Your task to perform on an android device: delete browsing data in the chrome app Image 0: 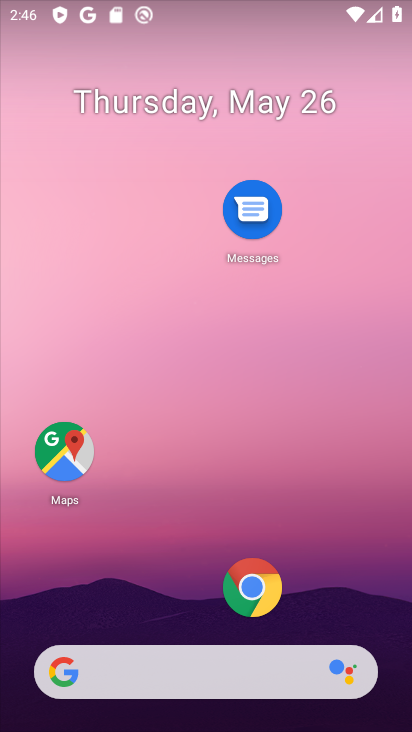
Step 0: drag from (141, 615) to (145, 69)
Your task to perform on an android device: delete browsing data in the chrome app Image 1: 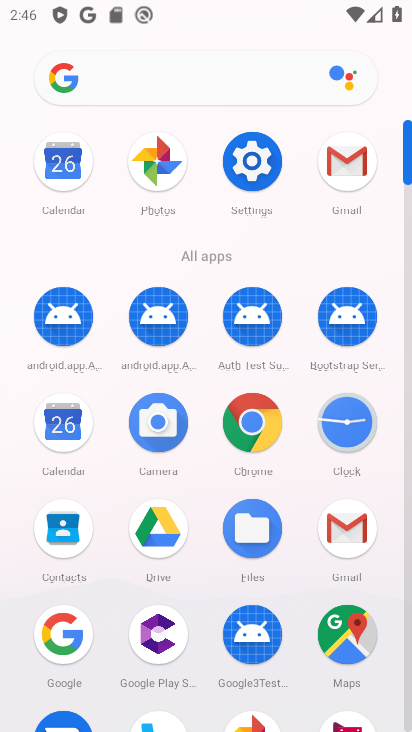
Step 1: click (253, 407)
Your task to perform on an android device: delete browsing data in the chrome app Image 2: 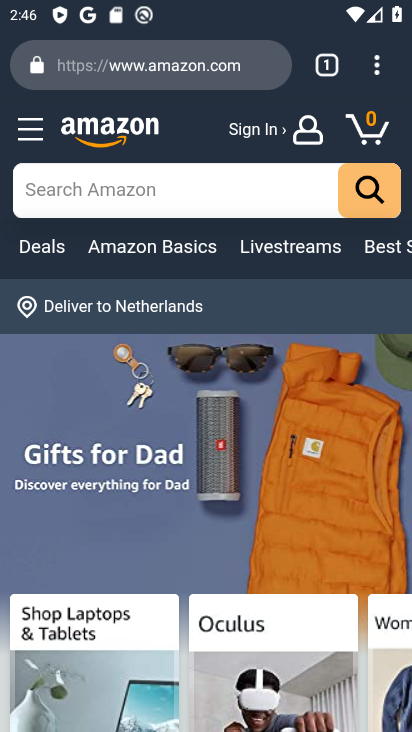
Step 2: click (370, 60)
Your task to perform on an android device: delete browsing data in the chrome app Image 3: 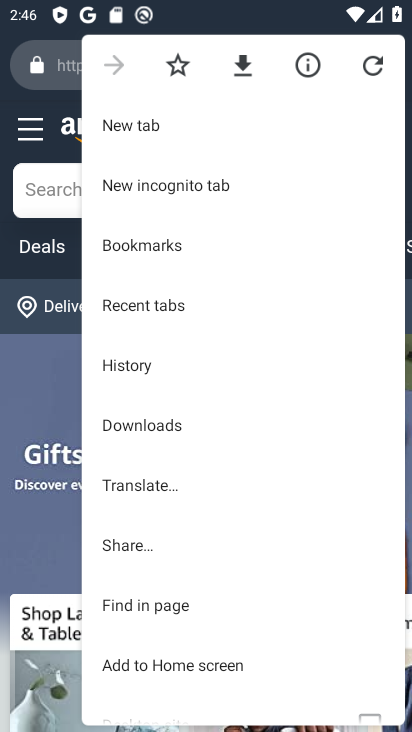
Step 3: click (150, 366)
Your task to perform on an android device: delete browsing data in the chrome app Image 4: 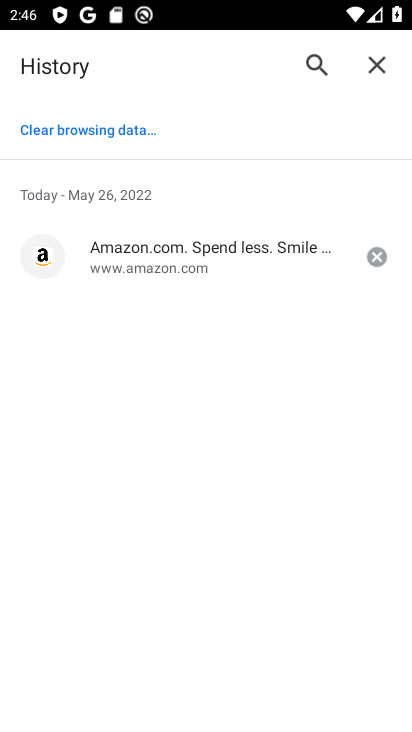
Step 4: click (127, 122)
Your task to perform on an android device: delete browsing data in the chrome app Image 5: 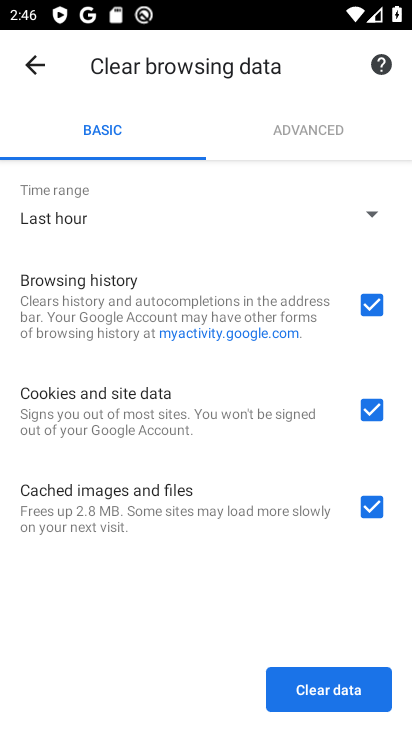
Step 5: click (319, 686)
Your task to perform on an android device: delete browsing data in the chrome app Image 6: 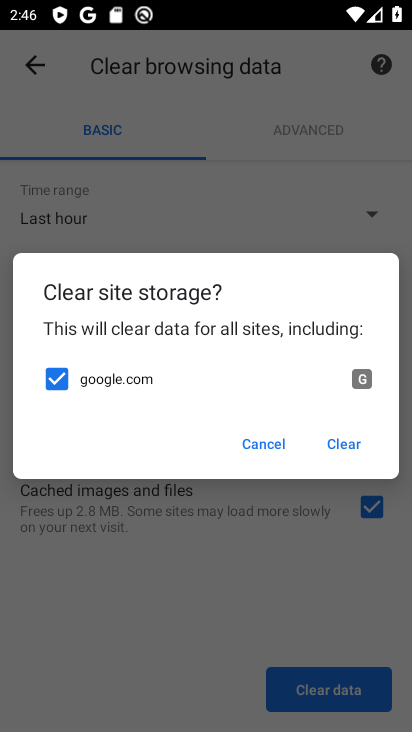
Step 6: click (352, 448)
Your task to perform on an android device: delete browsing data in the chrome app Image 7: 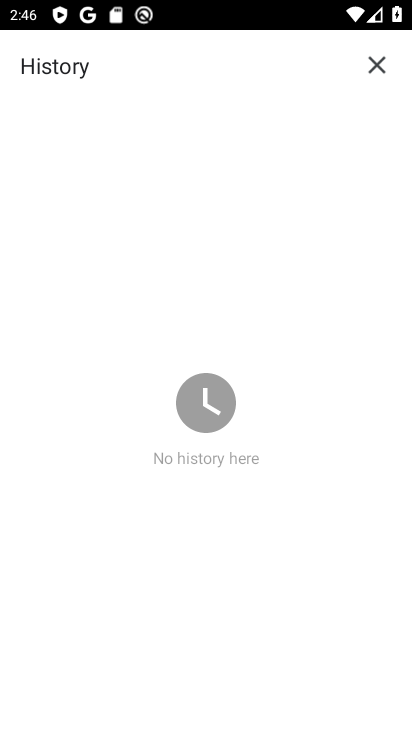
Step 7: task complete